Your task to perform on an android device: change notifications settings Image 0: 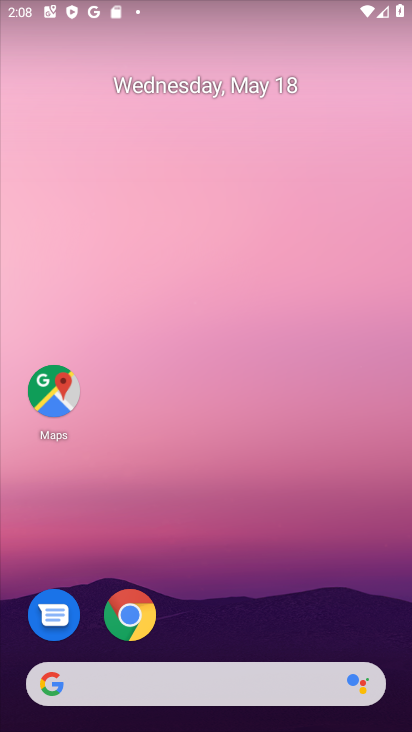
Step 0: drag from (215, 622) to (220, 112)
Your task to perform on an android device: change notifications settings Image 1: 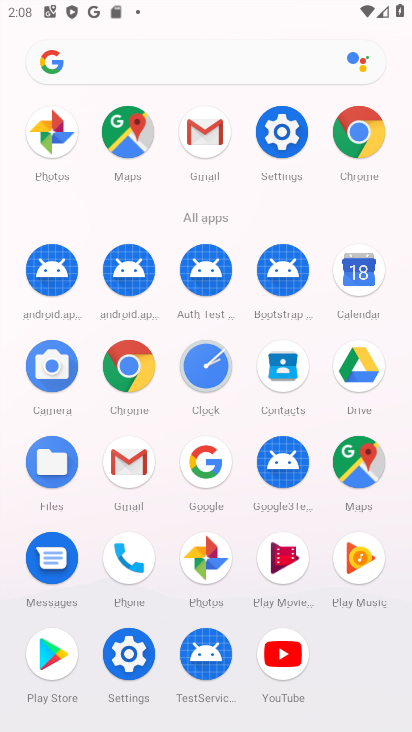
Step 1: click (286, 135)
Your task to perform on an android device: change notifications settings Image 2: 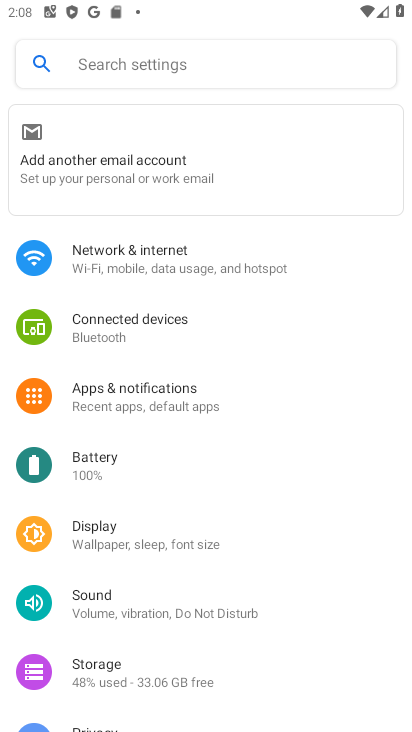
Step 2: click (211, 396)
Your task to perform on an android device: change notifications settings Image 3: 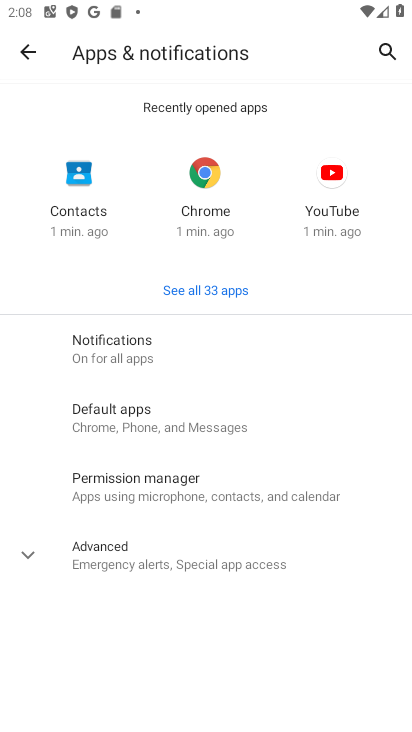
Step 3: click (206, 346)
Your task to perform on an android device: change notifications settings Image 4: 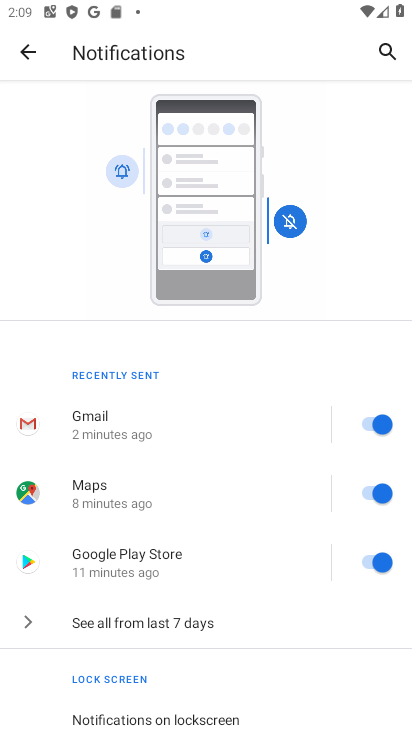
Step 4: drag from (305, 697) to (258, 380)
Your task to perform on an android device: change notifications settings Image 5: 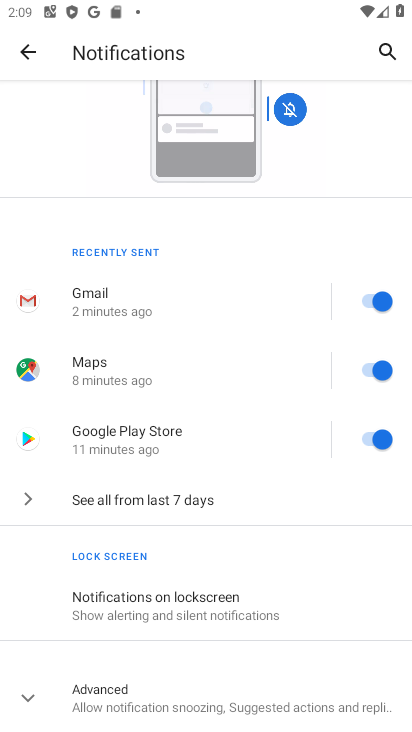
Step 5: drag from (220, 655) to (246, 422)
Your task to perform on an android device: change notifications settings Image 6: 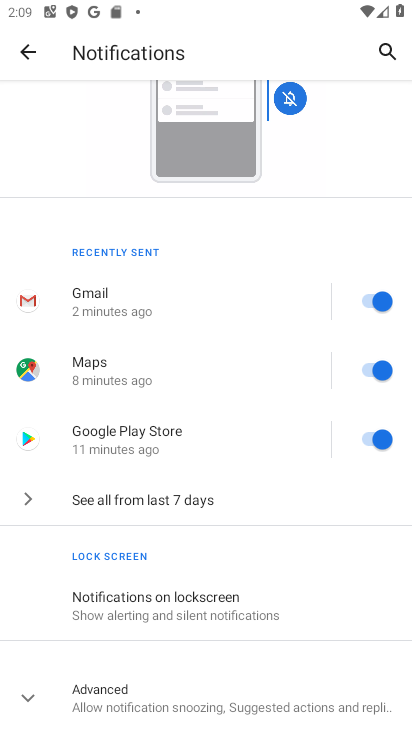
Step 6: click (224, 706)
Your task to perform on an android device: change notifications settings Image 7: 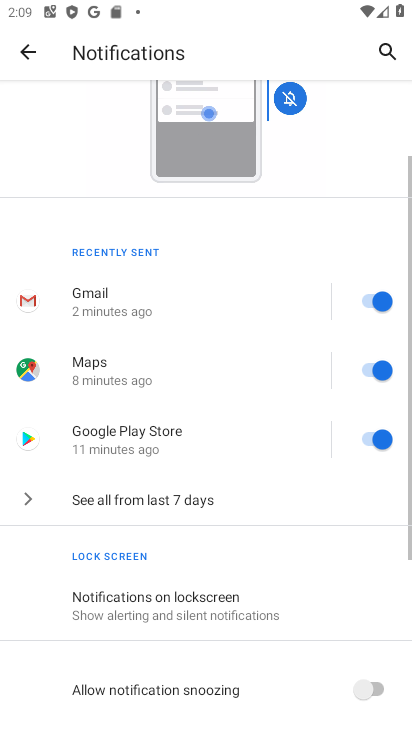
Step 7: drag from (224, 706) to (230, 380)
Your task to perform on an android device: change notifications settings Image 8: 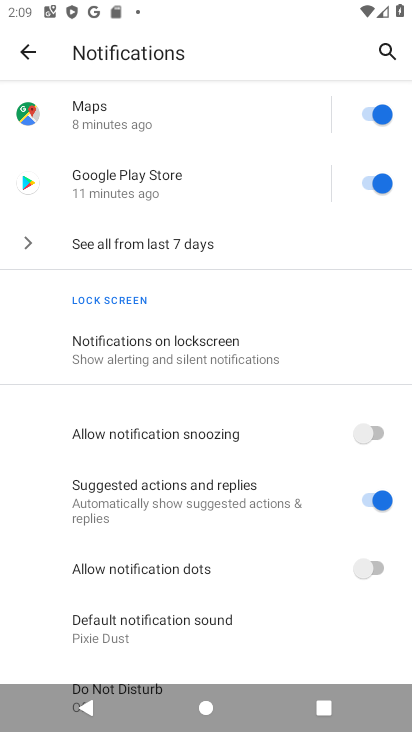
Step 8: click (374, 430)
Your task to perform on an android device: change notifications settings Image 9: 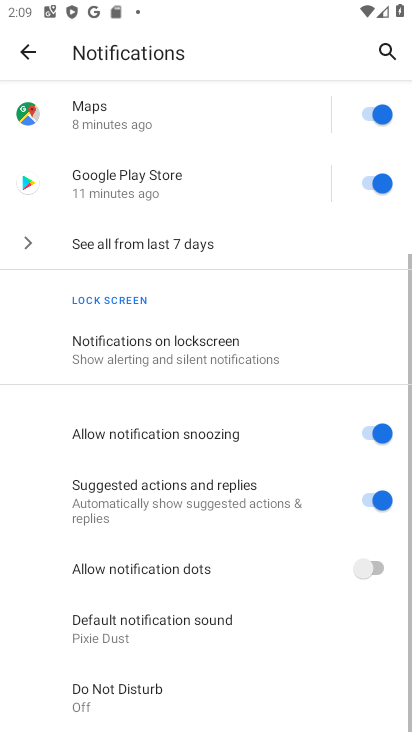
Step 9: click (375, 498)
Your task to perform on an android device: change notifications settings Image 10: 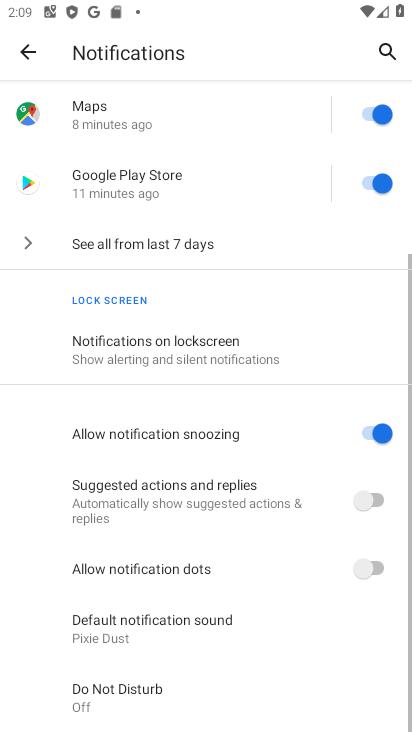
Step 10: click (379, 568)
Your task to perform on an android device: change notifications settings Image 11: 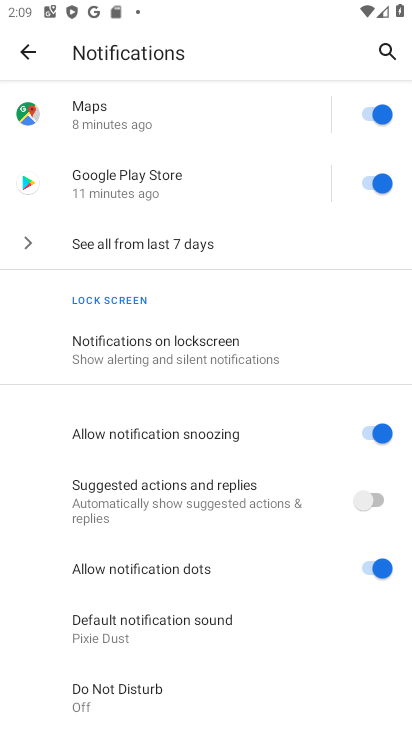
Step 11: task complete